Your task to perform on an android device: turn on priority inbox in the gmail app Image 0: 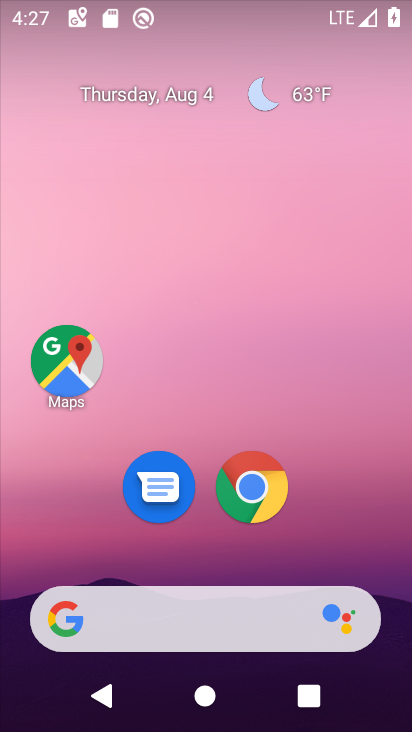
Step 0: drag from (127, 547) to (196, 40)
Your task to perform on an android device: turn on priority inbox in the gmail app Image 1: 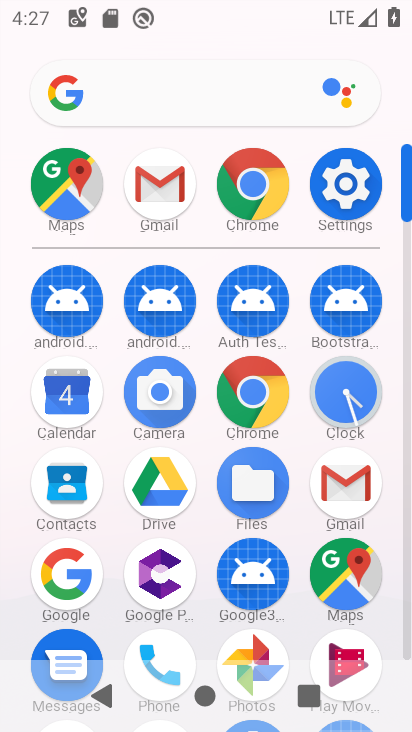
Step 1: click (159, 175)
Your task to perform on an android device: turn on priority inbox in the gmail app Image 2: 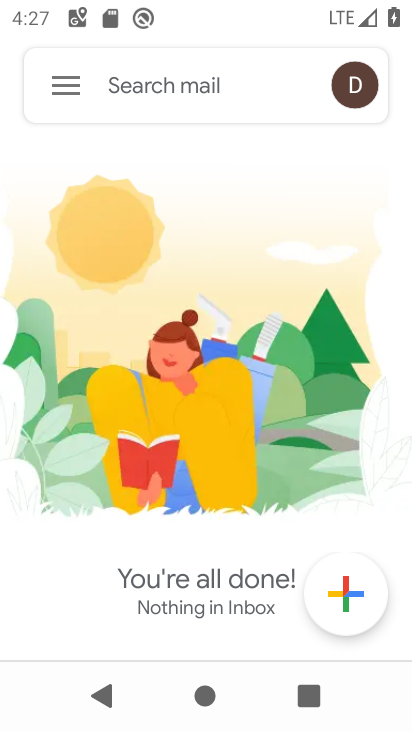
Step 2: click (61, 90)
Your task to perform on an android device: turn on priority inbox in the gmail app Image 3: 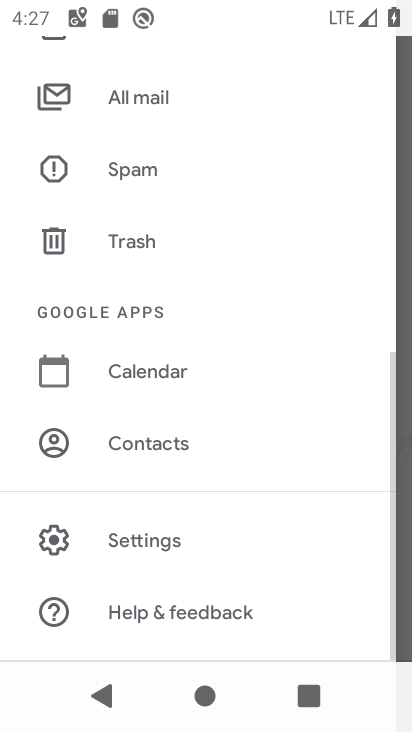
Step 3: click (194, 533)
Your task to perform on an android device: turn on priority inbox in the gmail app Image 4: 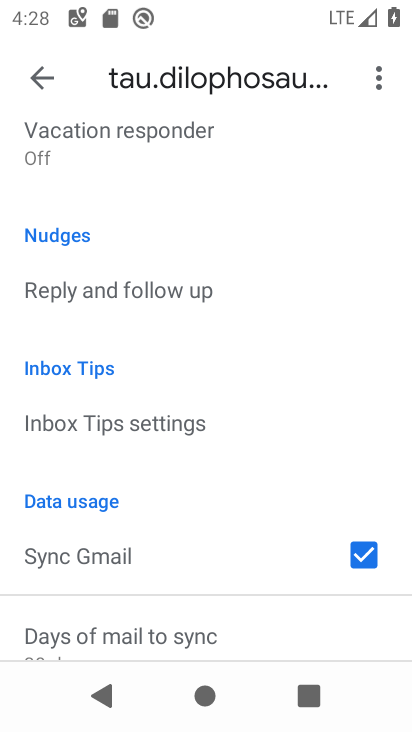
Step 4: drag from (209, 220) to (225, 648)
Your task to perform on an android device: turn on priority inbox in the gmail app Image 5: 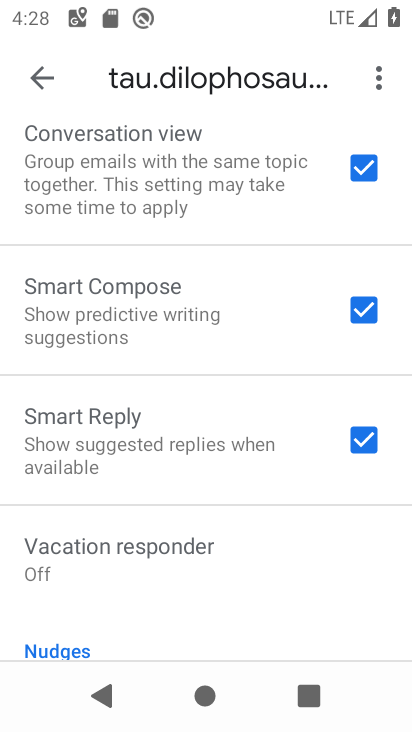
Step 5: drag from (214, 195) to (247, 707)
Your task to perform on an android device: turn on priority inbox in the gmail app Image 6: 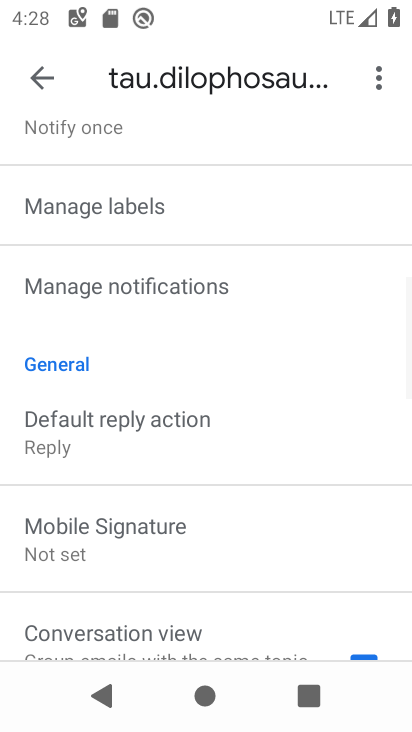
Step 6: drag from (273, 242) to (208, 730)
Your task to perform on an android device: turn on priority inbox in the gmail app Image 7: 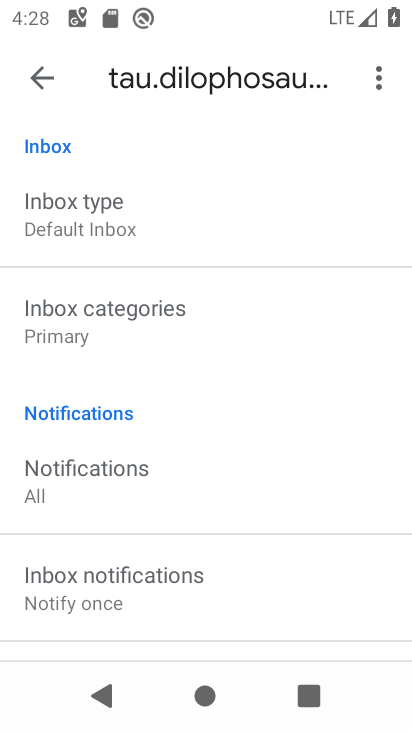
Step 7: click (74, 218)
Your task to perform on an android device: turn on priority inbox in the gmail app Image 8: 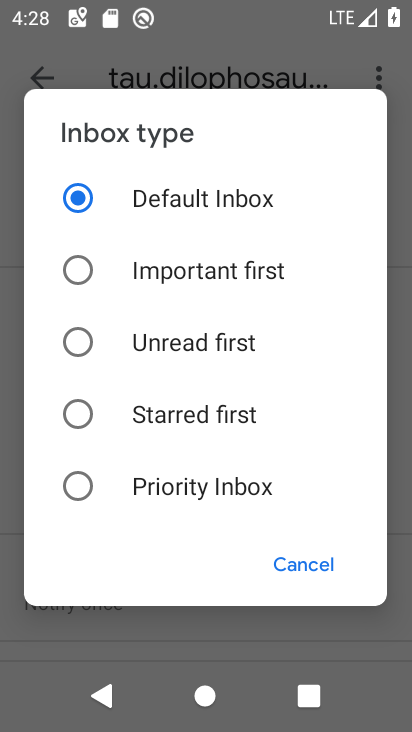
Step 8: click (70, 484)
Your task to perform on an android device: turn on priority inbox in the gmail app Image 9: 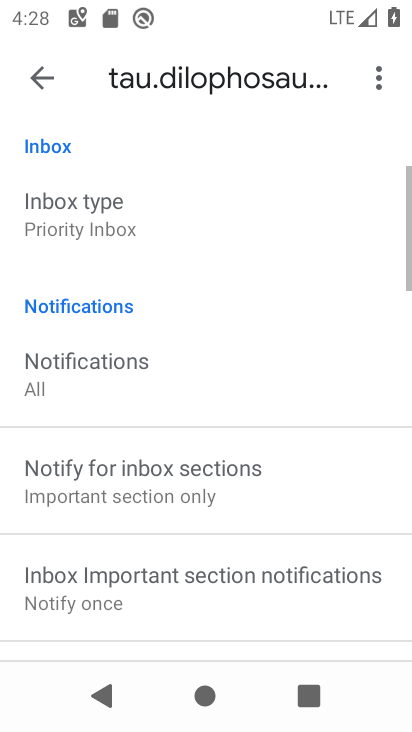
Step 9: task complete